Your task to perform on an android device: Open Google Image 0: 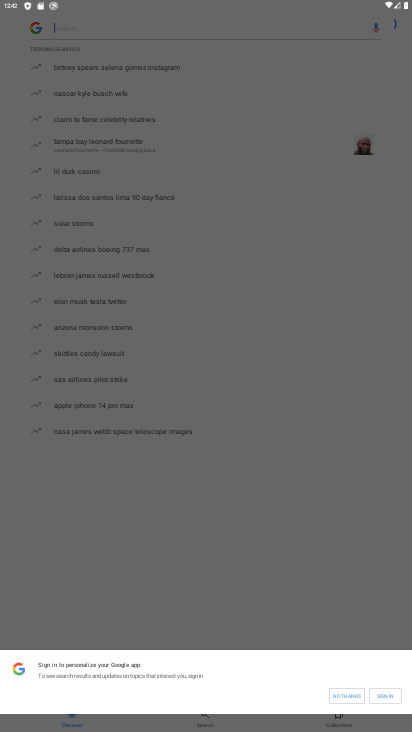
Step 0: press back button
Your task to perform on an android device: Open Google Image 1: 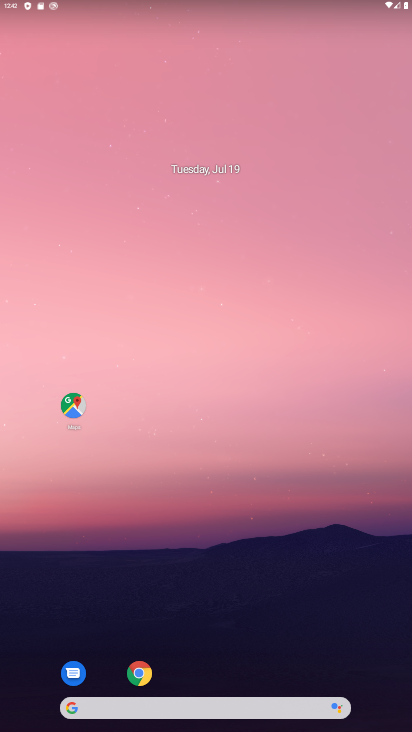
Step 1: drag from (210, 700) to (168, 115)
Your task to perform on an android device: Open Google Image 2: 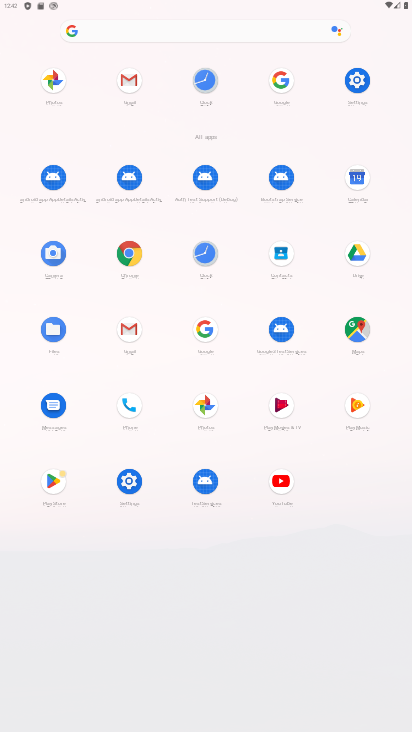
Step 2: click (206, 336)
Your task to perform on an android device: Open Google Image 3: 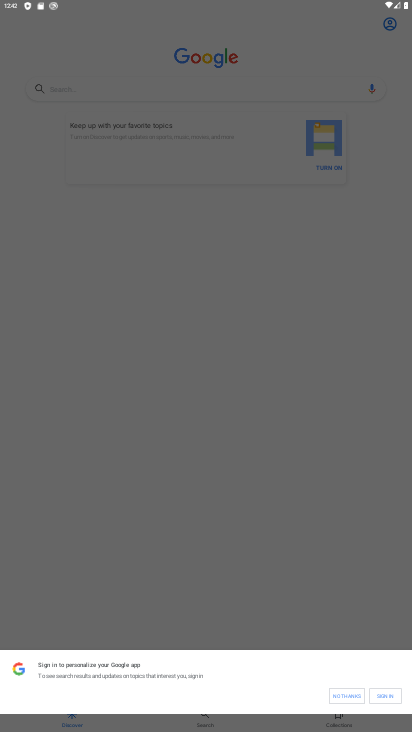
Step 3: click (164, 115)
Your task to perform on an android device: Open Google Image 4: 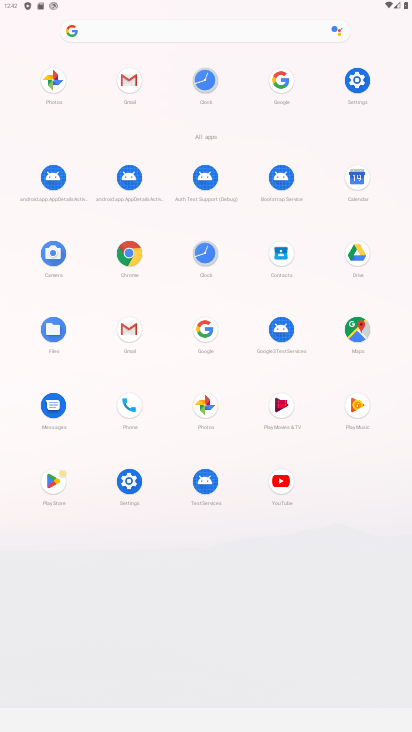
Step 4: click (207, 318)
Your task to perform on an android device: Open Google Image 5: 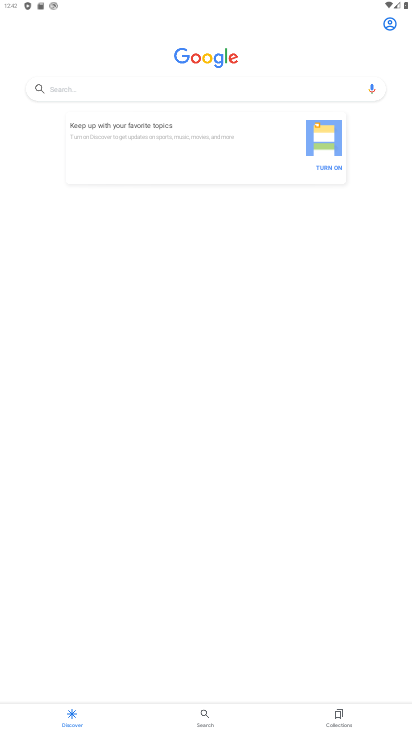
Step 5: task complete